Your task to perform on an android device: make emails show in primary in the gmail app Image 0: 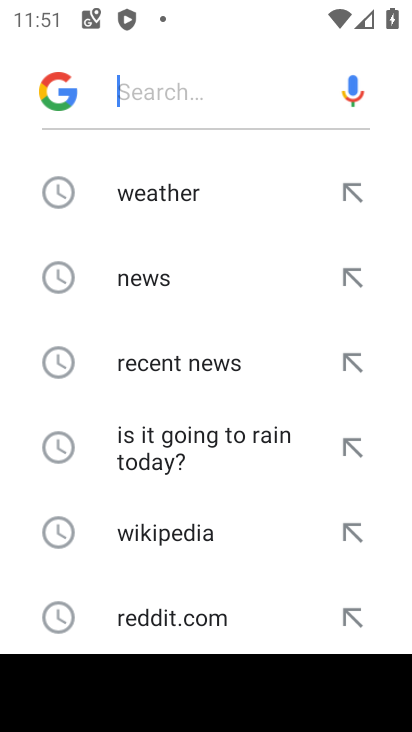
Step 0: press home button
Your task to perform on an android device: make emails show in primary in the gmail app Image 1: 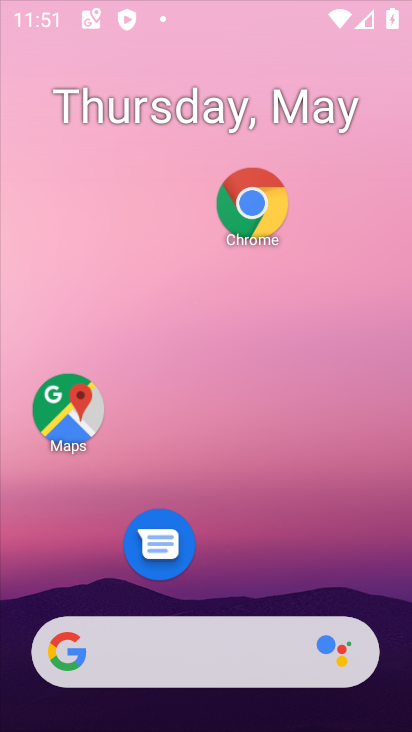
Step 1: drag from (169, 591) to (114, 9)
Your task to perform on an android device: make emails show in primary in the gmail app Image 2: 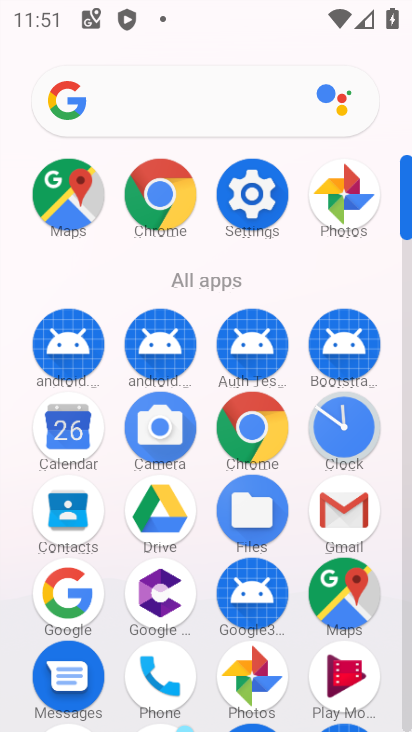
Step 2: click (355, 496)
Your task to perform on an android device: make emails show in primary in the gmail app Image 3: 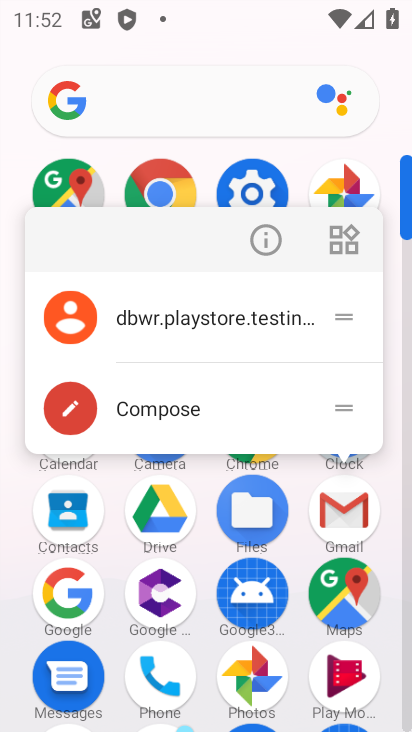
Step 3: click (193, 316)
Your task to perform on an android device: make emails show in primary in the gmail app Image 4: 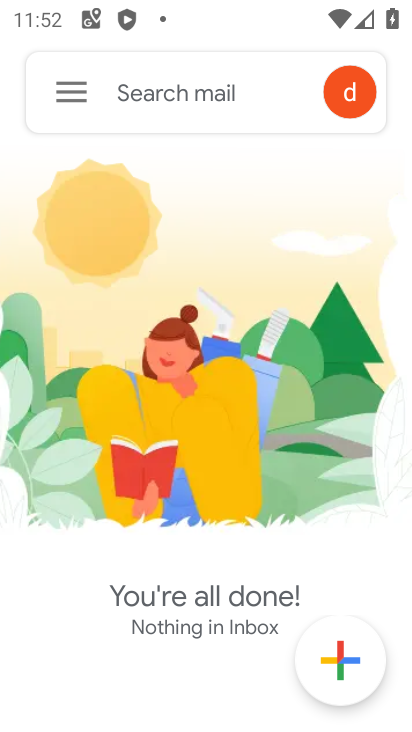
Step 4: task complete